Your task to perform on an android device: Show me recent news Image 0: 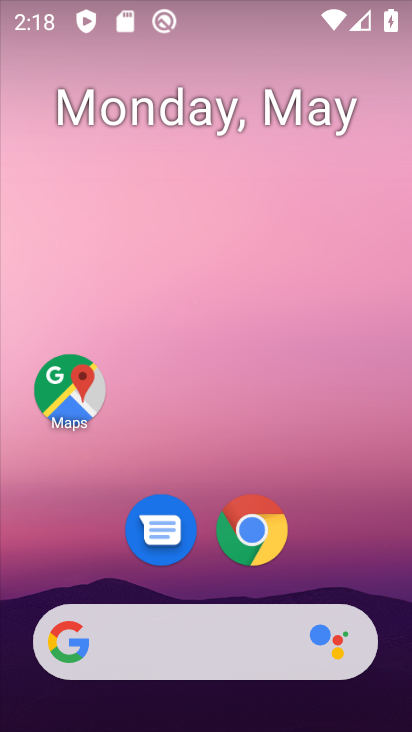
Step 0: click (211, 643)
Your task to perform on an android device: Show me recent news Image 1: 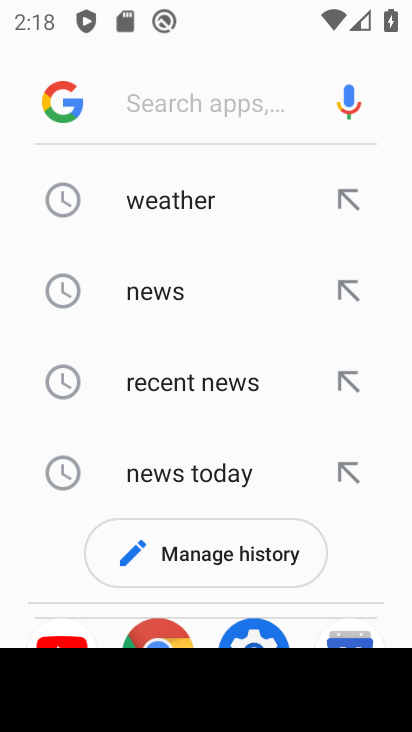
Step 1: click (198, 389)
Your task to perform on an android device: Show me recent news Image 2: 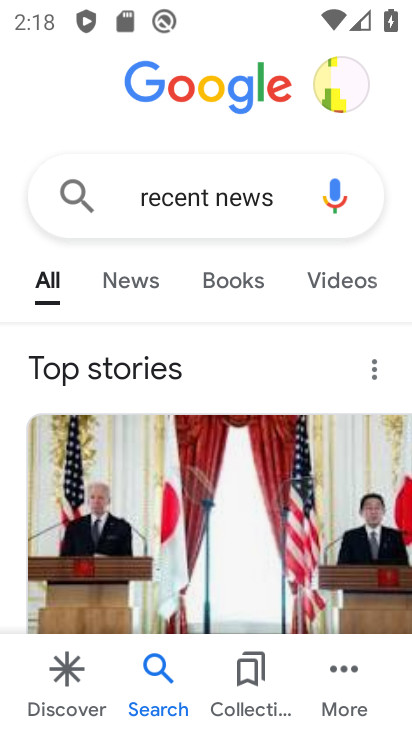
Step 2: task complete